Your task to perform on an android device: Open Yahoo.com Image 0: 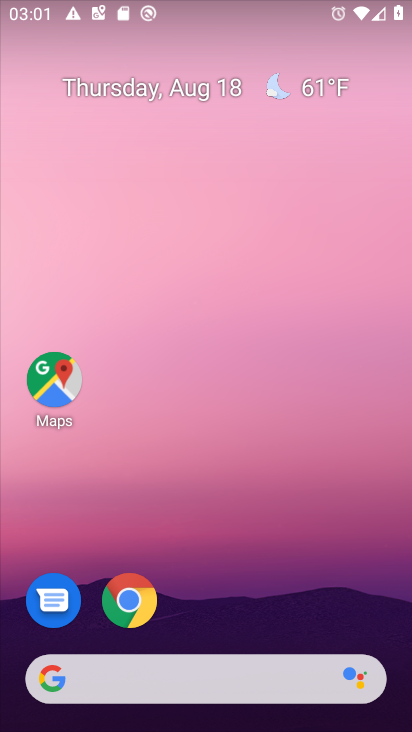
Step 0: press home button
Your task to perform on an android device: Open Yahoo.com Image 1: 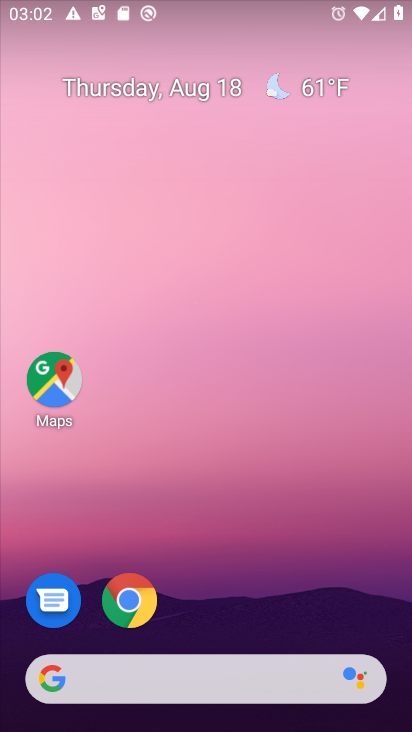
Step 1: click (53, 691)
Your task to perform on an android device: Open Yahoo.com Image 2: 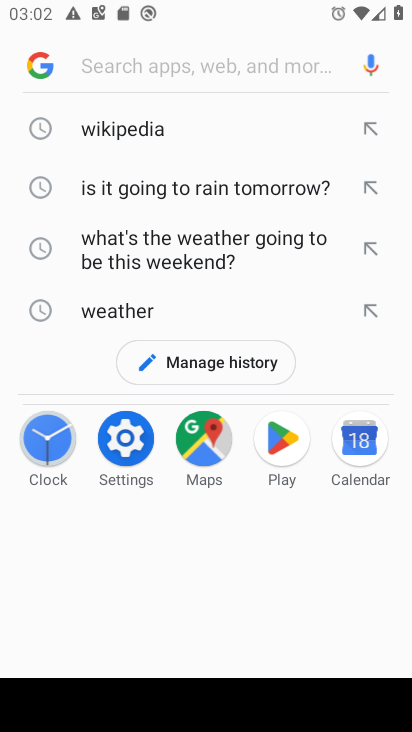
Step 2: type "Yahoo.com"
Your task to perform on an android device: Open Yahoo.com Image 3: 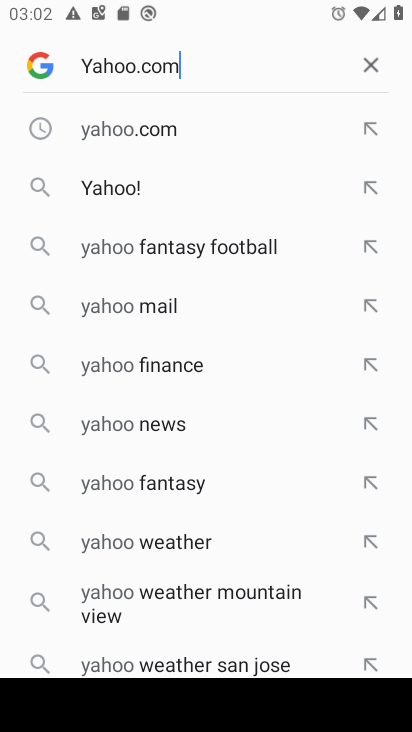
Step 3: press enter
Your task to perform on an android device: Open Yahoo.com Image 4: 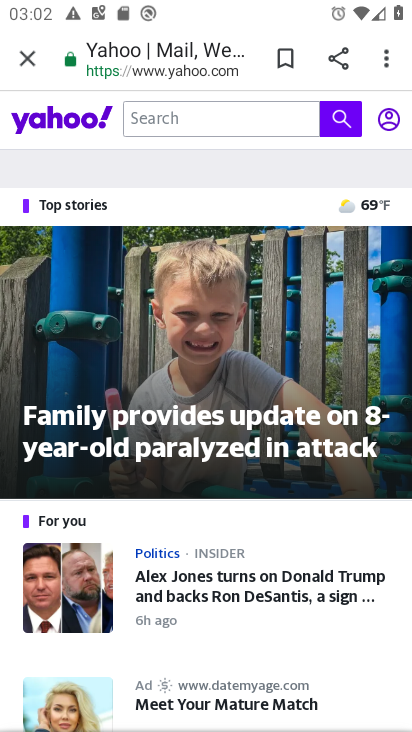
Step 4: task complete